Your task to perform on an android device: What's on my calendar tomorrow? Image 0: 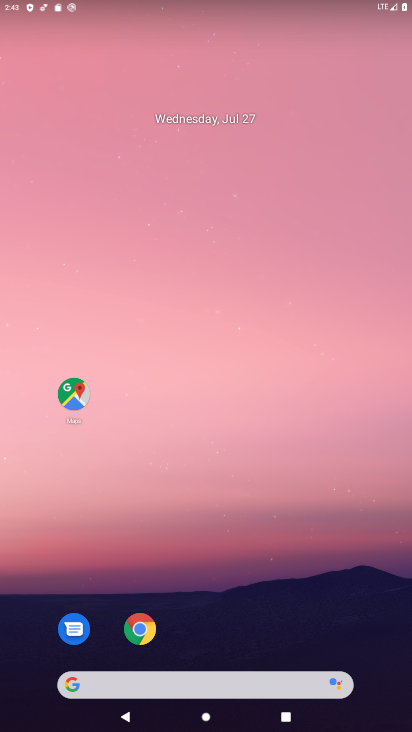
Step 0: click (223, 118)
Your task to perform on an android device: What's on my calendar tomorrow? Image 1: 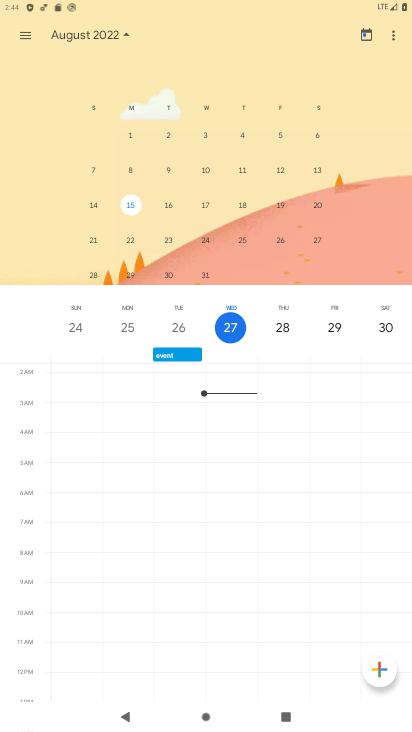
Step 1: drag from (46, 211) to (354, 238)
Your task to perform on an android device: What's on my calendar tomorrow? Image 2: 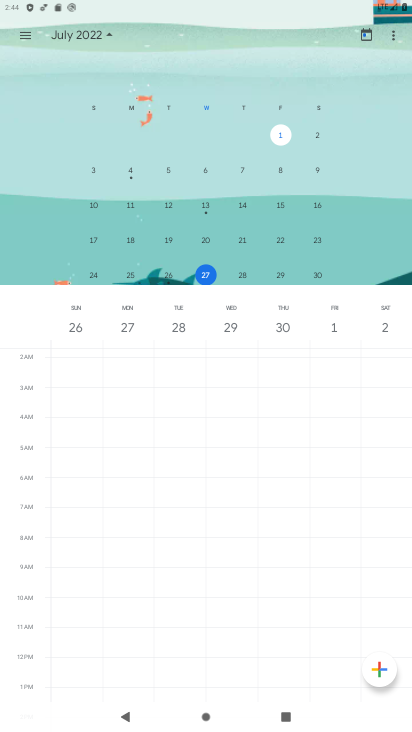
Step 2: click (249, 276)
Your task to perform on an android device: What's on my calendar tomorrow? Image 3: 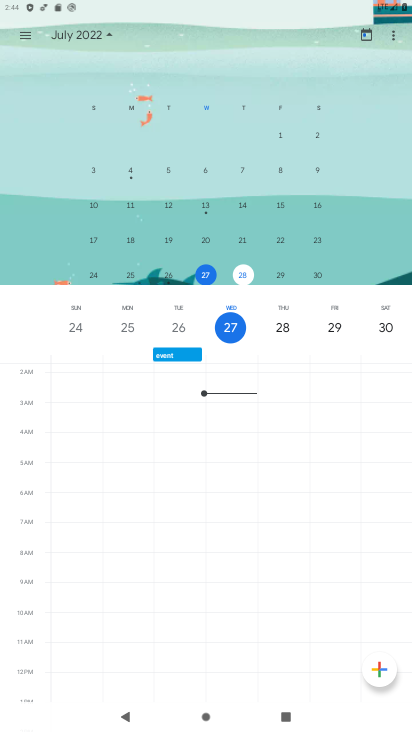
Step 3: task complete